Your task to perform on an android device: turn on airplane mode Image 0: 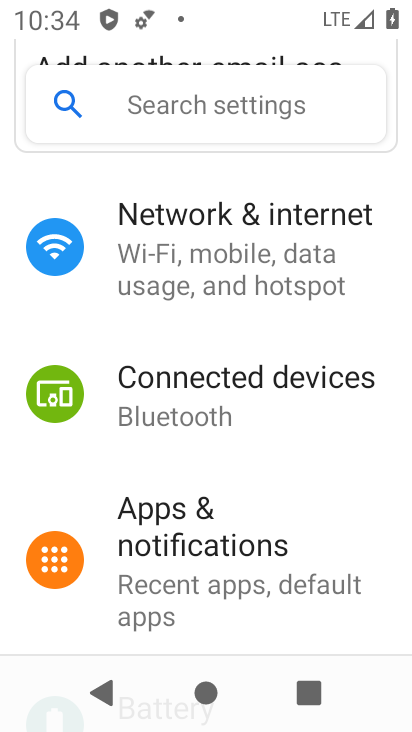
Step 0: click (240, 268)
Your task to perform on an android device: turn on airplane mode Image 1: 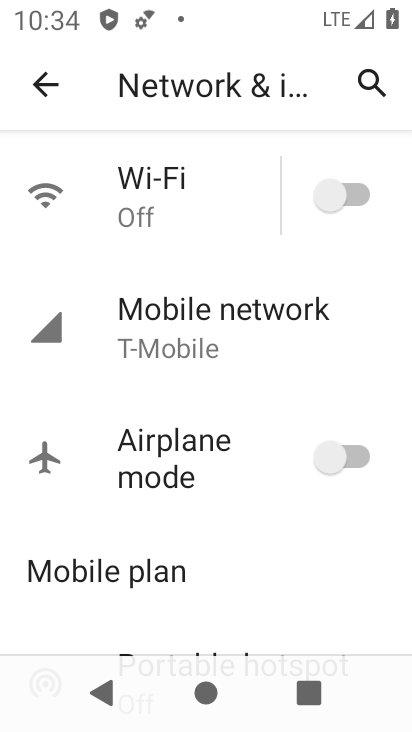
Step 1: click (346, 446)
Your task to perform on an android device: turn on airplane mode Image 2: 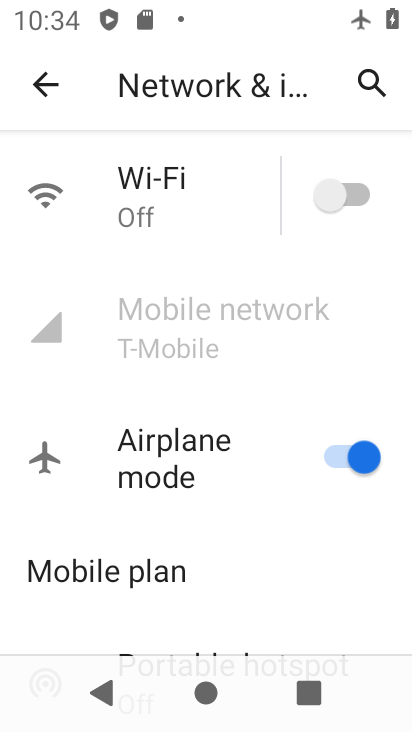
Step 2: task complete